Your task to perform on an android device: Open display settings Image 0: 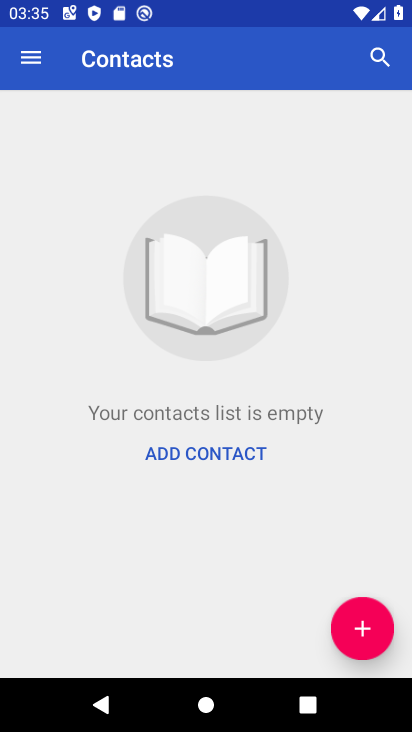
Step 0: press home button
Your task to perform on an android device: Open display settings Image 1: 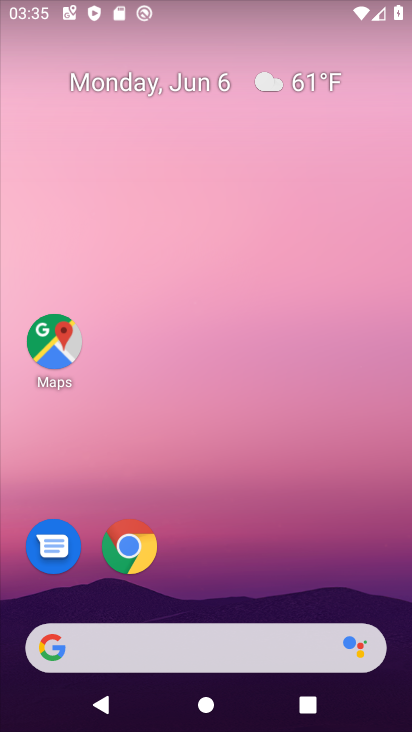
Step 1: drag from (243, 601) to (312, 1)
Your task to perform on an android device: Open display settings Image 2: 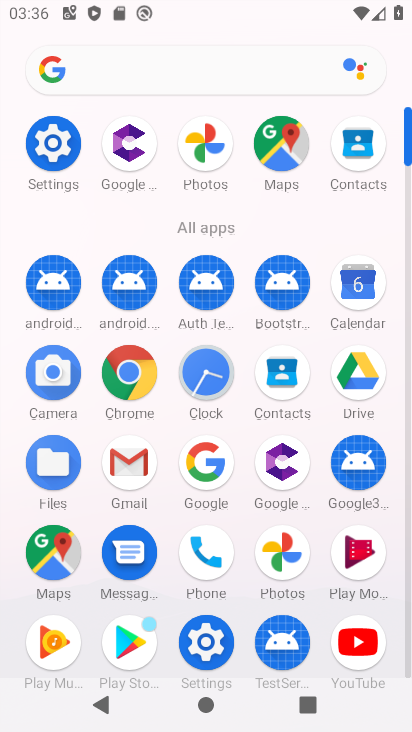
Step 2: click (45, 142)
Your task to perform on an android device: Open display settings Image 3: 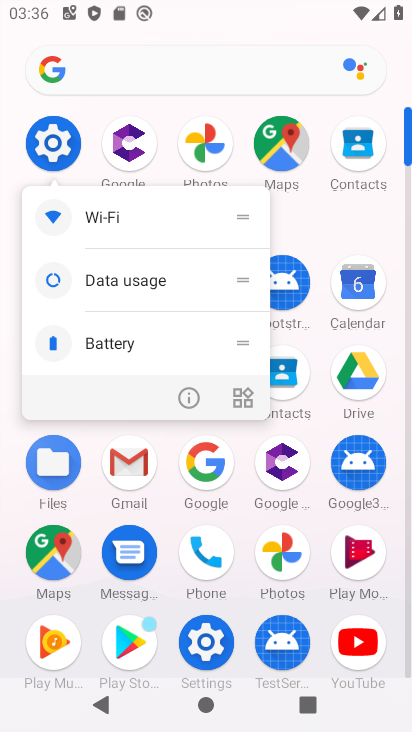
Step 3: click (64, 148)
Your task to perform on an android device: Open display settings Image 4: 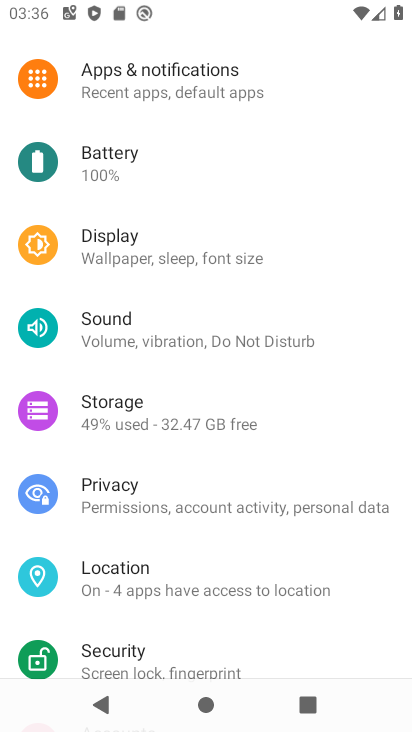
Step 4: click (112, 251)
Your task to perform on an android device: Open display settings Image 5: 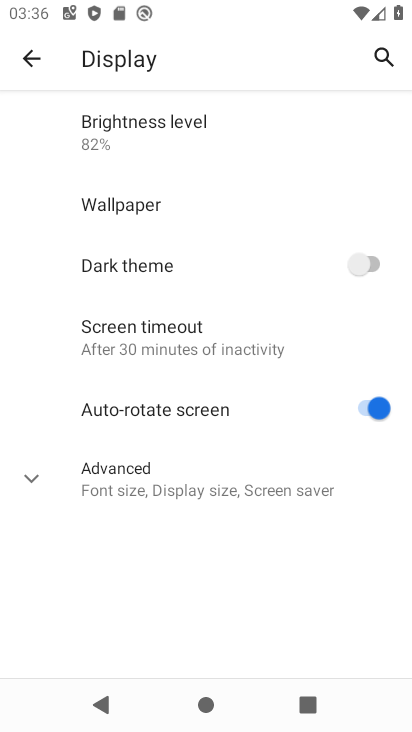
Step 5: task complete